Your task to perform on an android device: Open Amazon Image 0: 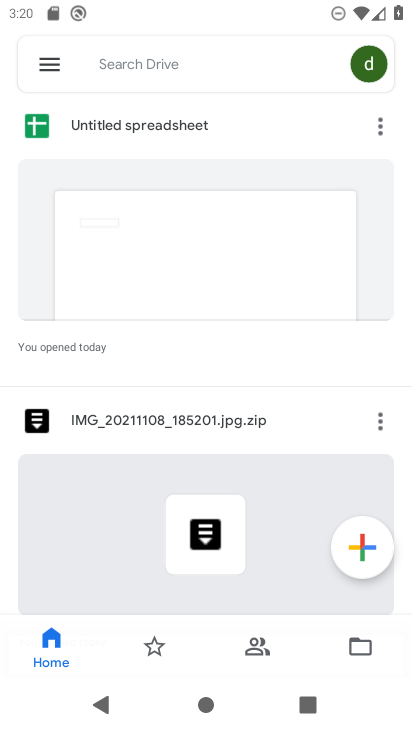
Step 0: press home button
Your task to perform on an android device: Open Amazon Image 1: 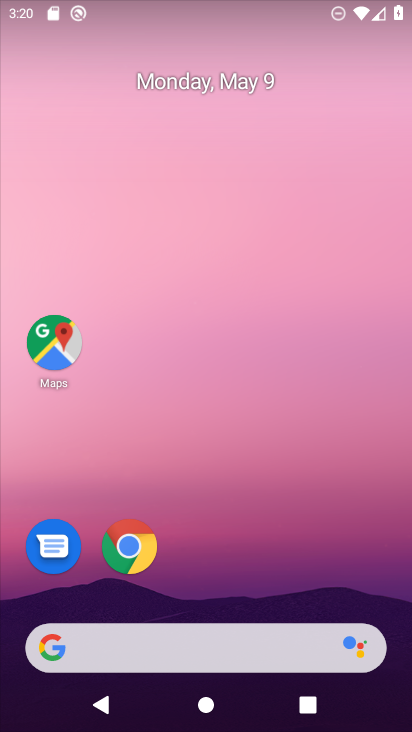
Step 1: click (124, 568)
Your task to perform on an android device: Open Amazon Image 2: 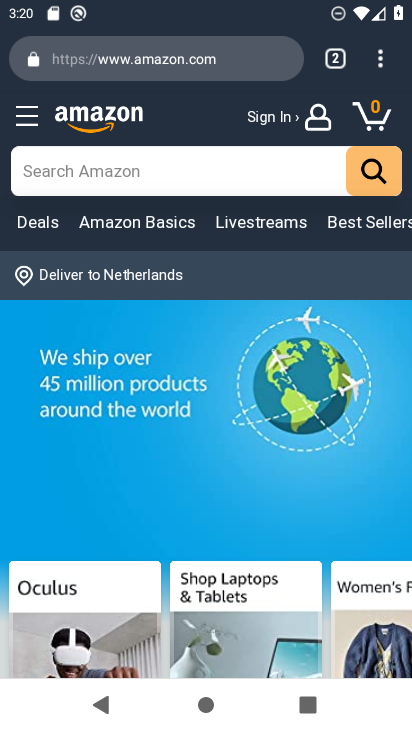
Step 2: task complete